Your task to perform on an android device: Go to Amazon Image 0: 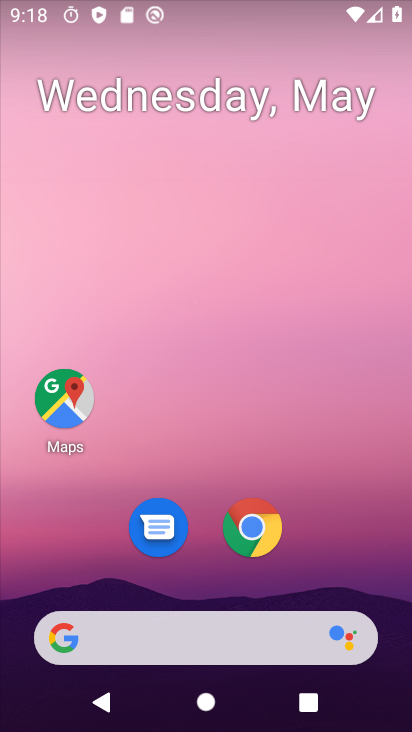
Step 0: click (254, 546)
Your task to perform on an android device: Go to Amazon Image 1: 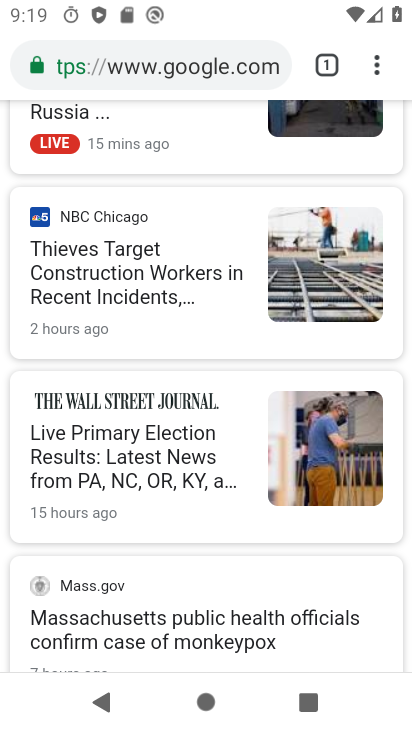
Step 1: drag from (379, 67) to (166, 143)
Your task to perform on an android device: Go to Amazon Image 2: 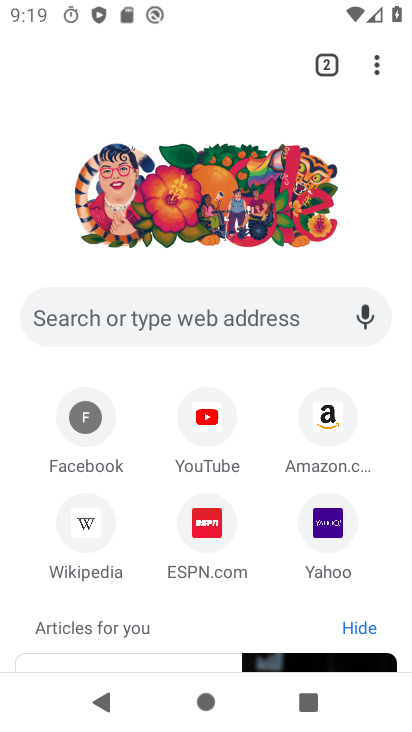
Step 2: click (331, 415)
Your task to perform on an android device: Go to Amazon Image 3: 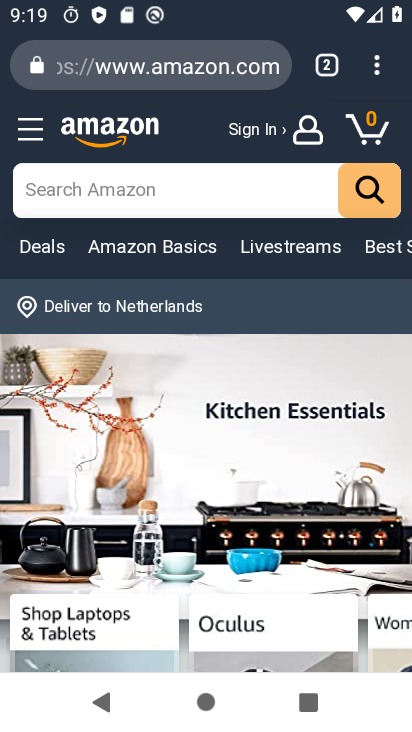
Step 3: task complete